Your task to perform on an android device: delete the emails in spam in the gmail app Image 0: 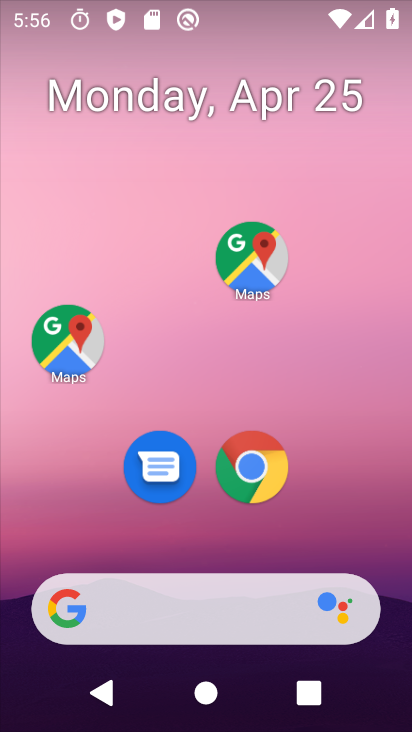
Step 0: drag from (354, 493) to (370, 11)
Your task to perform on an android device: delete the emails in spam in the gmail app Image 1: 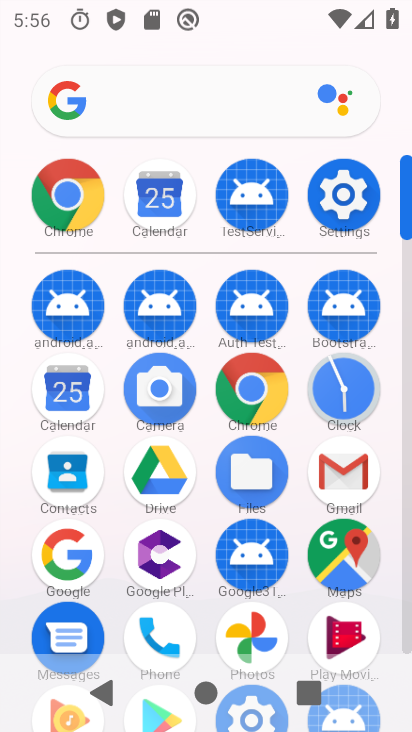
Step 1: click (329, 478)
Your task to perform on an android device: delete the emails in spam in the gmail app Image 2: 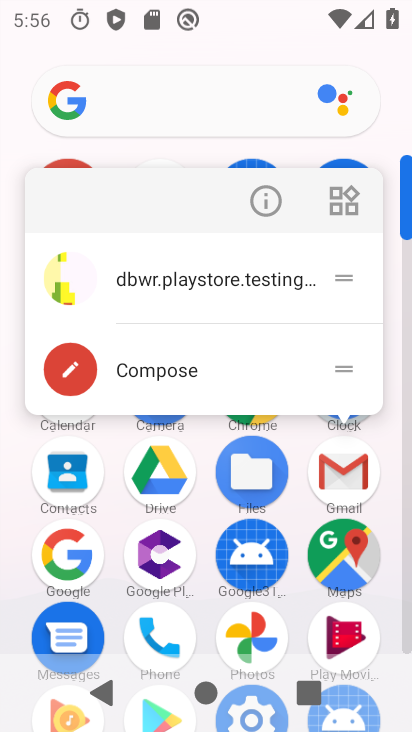
Step 2: click (330, 477)
Your task to perform on an android device: delete the emails in spam in the gmail app Image 3: 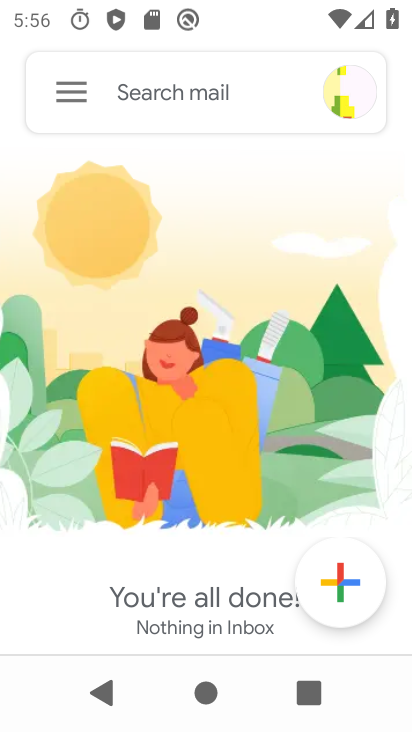
Step 3: click (81, 77)
Your task to perform on an android device: delete the emails in spam in the gmail app Image 4: 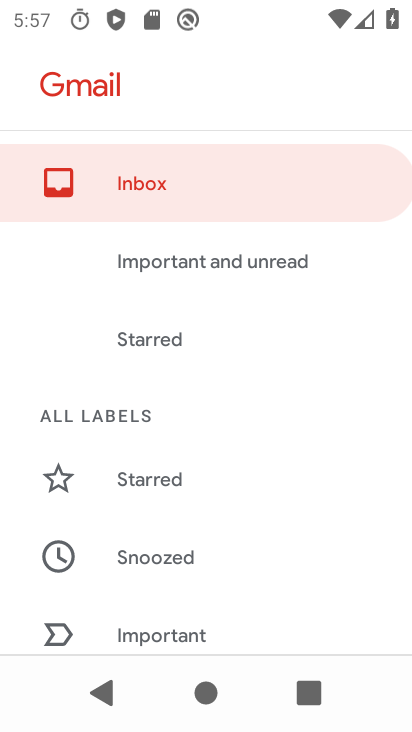
Step 4: drag from (183, 596) to (222, 30)
Your task to perform on an android device: delete the emails in spam in the gmail app Image 5: 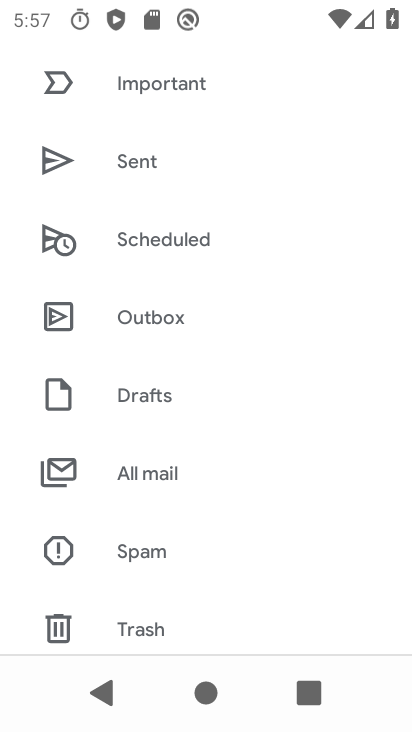
Step 5: click (188, 553)
Your task to perform on an android device: delete the emails in spam in the gmail app Image 6: 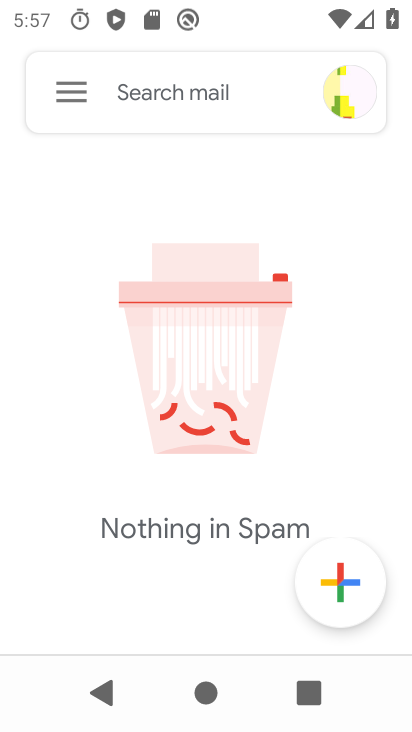
Step 6: task complete